Your task to perform on an android device: turn on wifi Image 0: 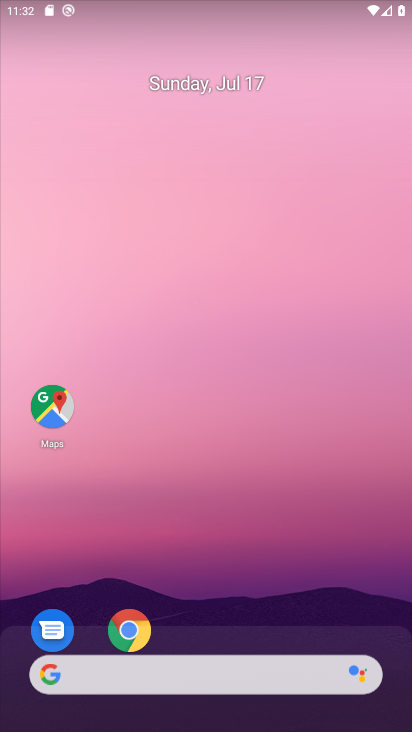
Step 0: drag from (231, 667) to (285, 244)
Your task to perform on an android device: turn on wifi Image 1: 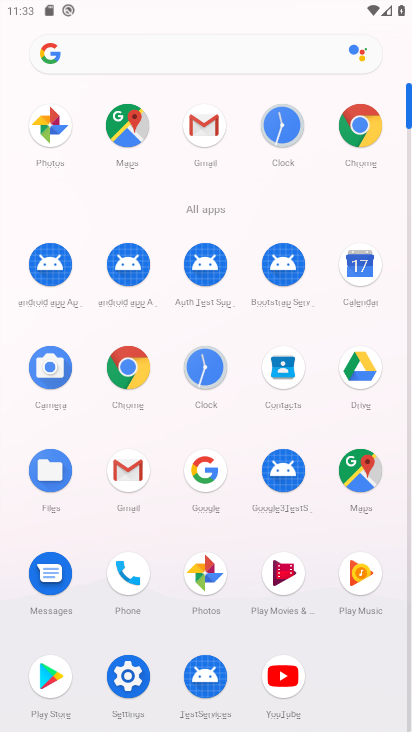
Step 1: click (115, 667)
Your task to perform on an android device: turn on wifi Image 2: 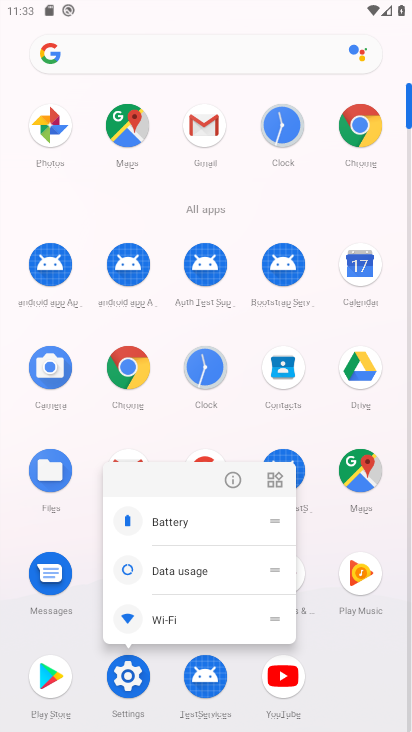
Step 2: click (115, 678)
Your task to perform on an android device: turn on wifi Image 3: 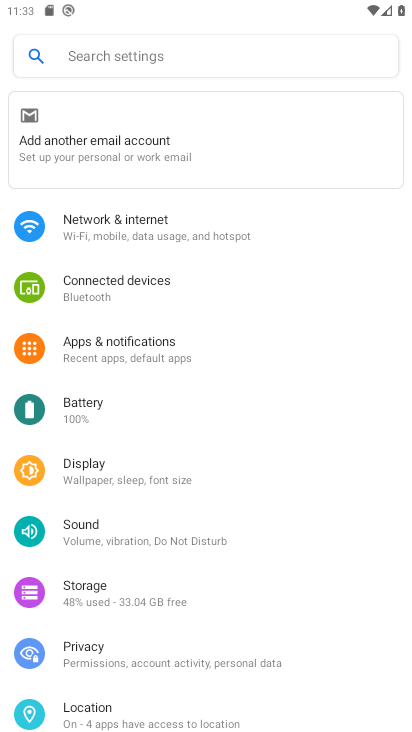
Step 3: click (172, 235)
Your task to perform on an android device: turn on wifi Image 4: 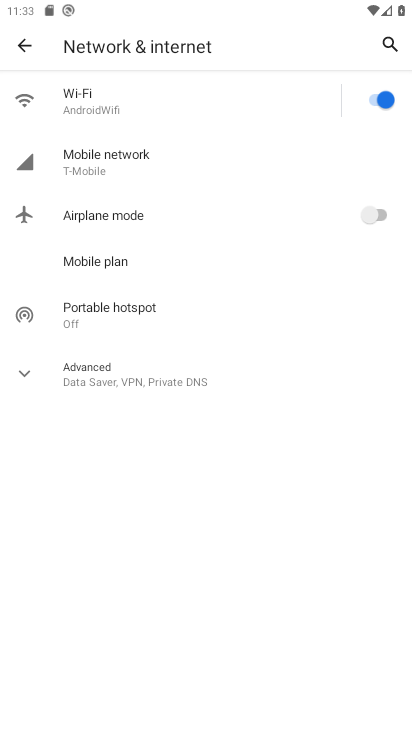
Step 4: click (171, 218)
Your task to perform on an android device: turn on wifi Image 5: 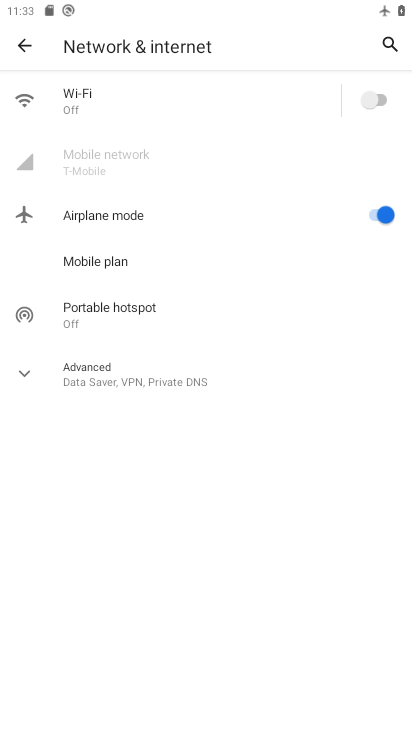
Step 5: click (398, 95)
Your task to perform on an android device: turn on wifi Image 6: 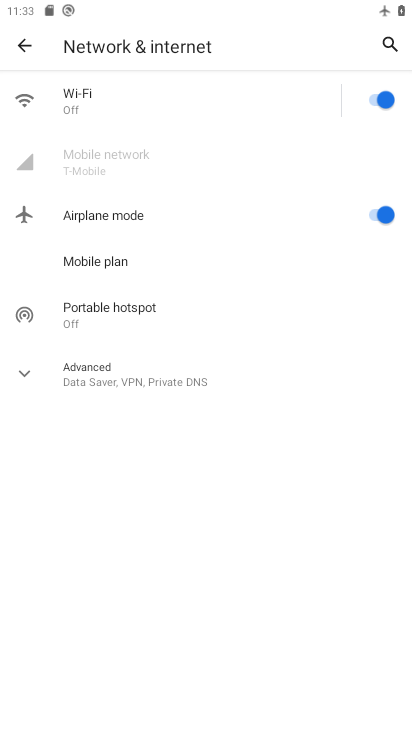
Step 6: click (388, 95)
Your task to perform on an android device: turn on wifi Image 7: 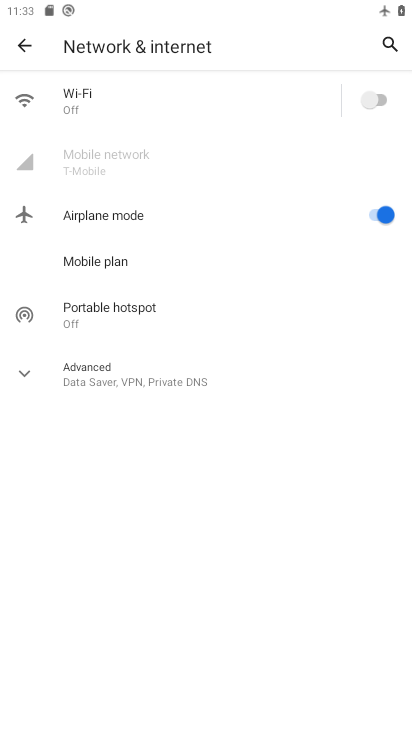
Step 7: task complete